Your task to perform on an android device: Show me the alarms in the clock app Image 0: 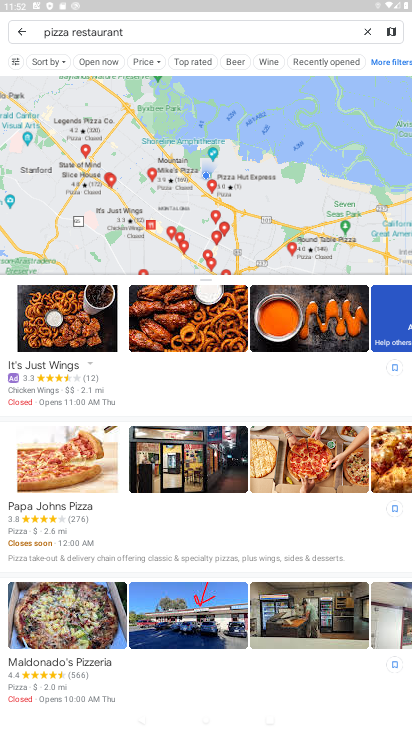
Step 0: press home button
Your task to perform on an android device: Show me the alarms in the clock app Image 1: 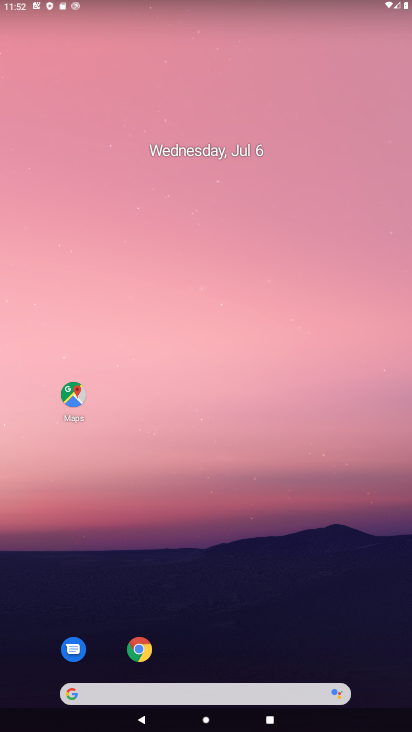
Step 1: drag from (53, 654) to (262, 12)
Your task to perform on an android device: Show me the alarms in the clock app Image 2: 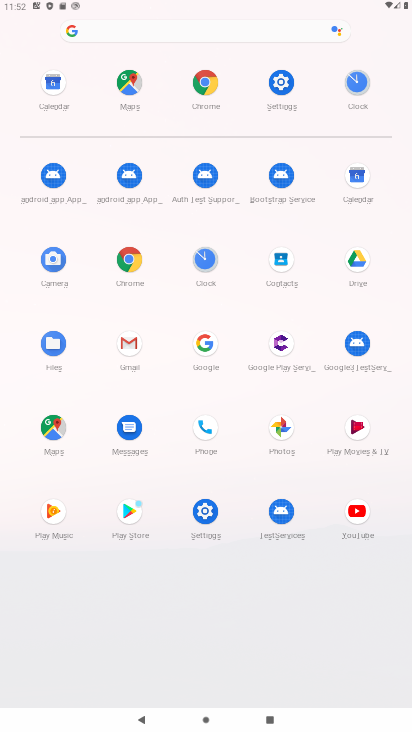
Step 2: click (191, 256)
Your task to perform on an android device: Show me the alarms in the clock app Image 3: 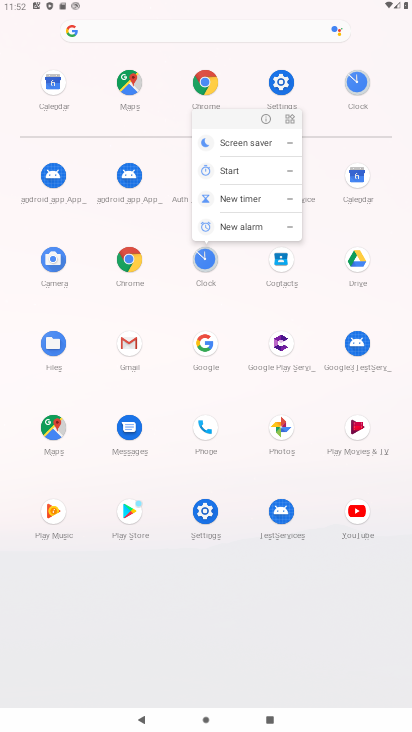
Step 3: click (205, 266)
Your task to perform on an android device: Show me the alarms in the clock app Image 4: 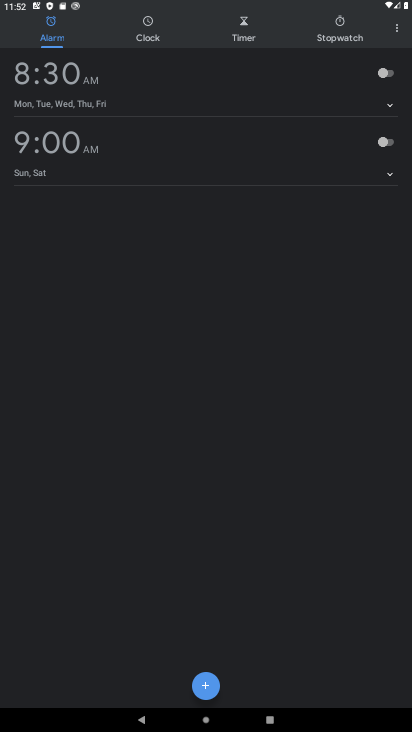
Step 4: click (198, 260)
Your task to perform on an android device: Show me the alarms in the clock app Image 5: 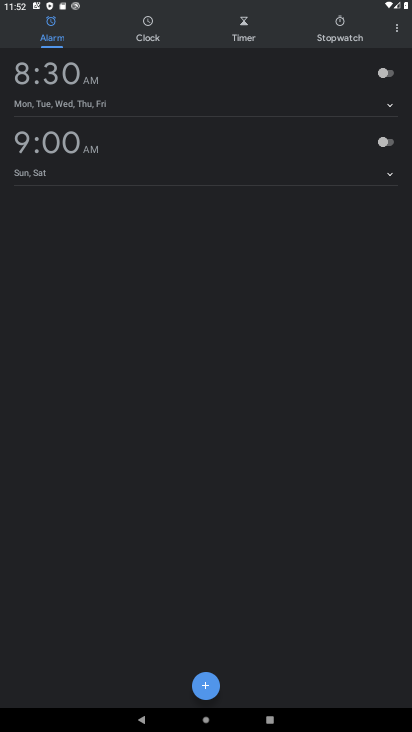
Step 5: task complete